Your task to perform on an android device: change text size in settings app Image 0: 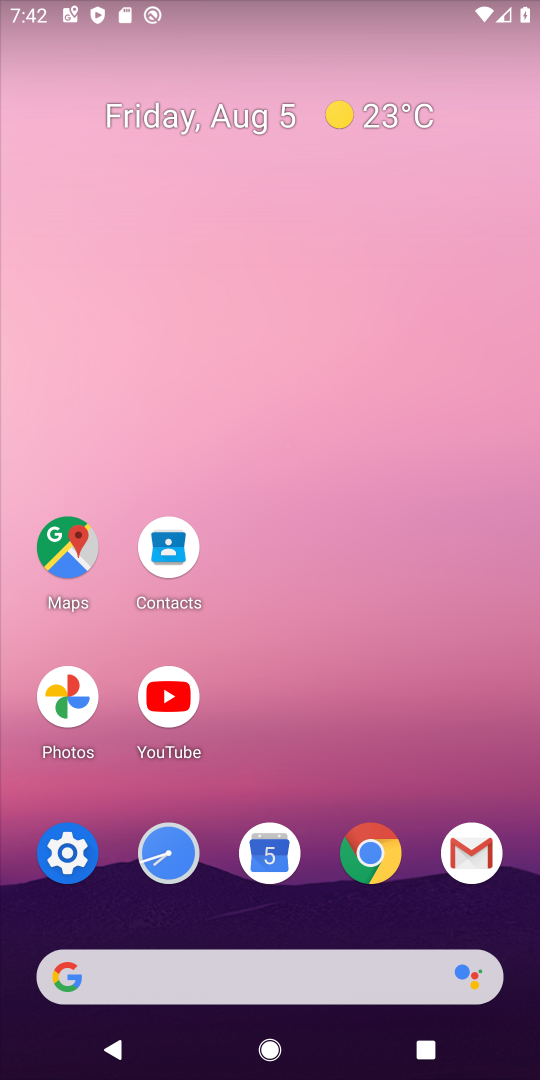
Step 0: click (81, 866)
Your task to perform on an android device: change text size in settings app Image 1: 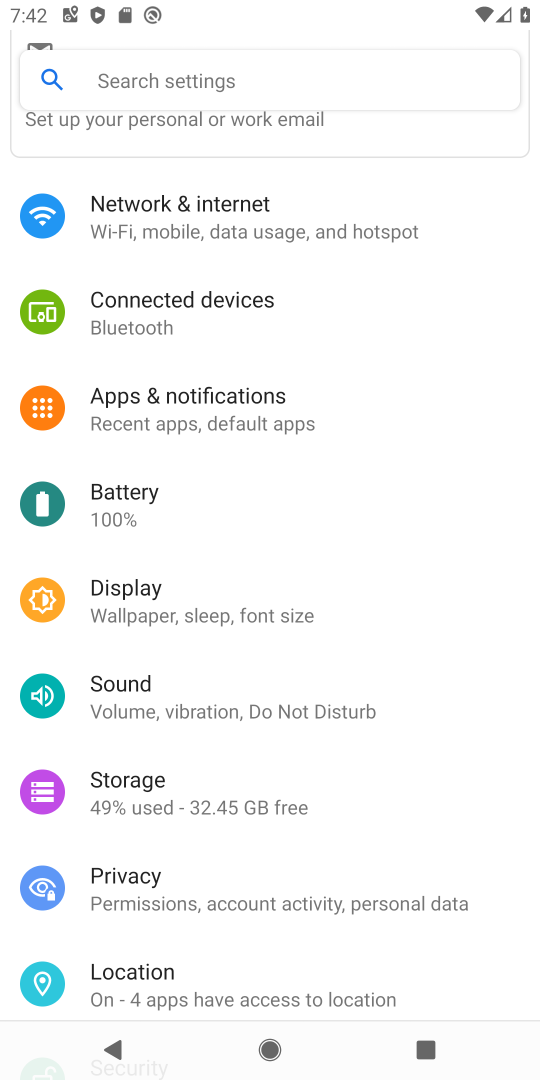
Step 1: click (94, 585)
Your task to perform on an android device: change text size in settings app Image 2: 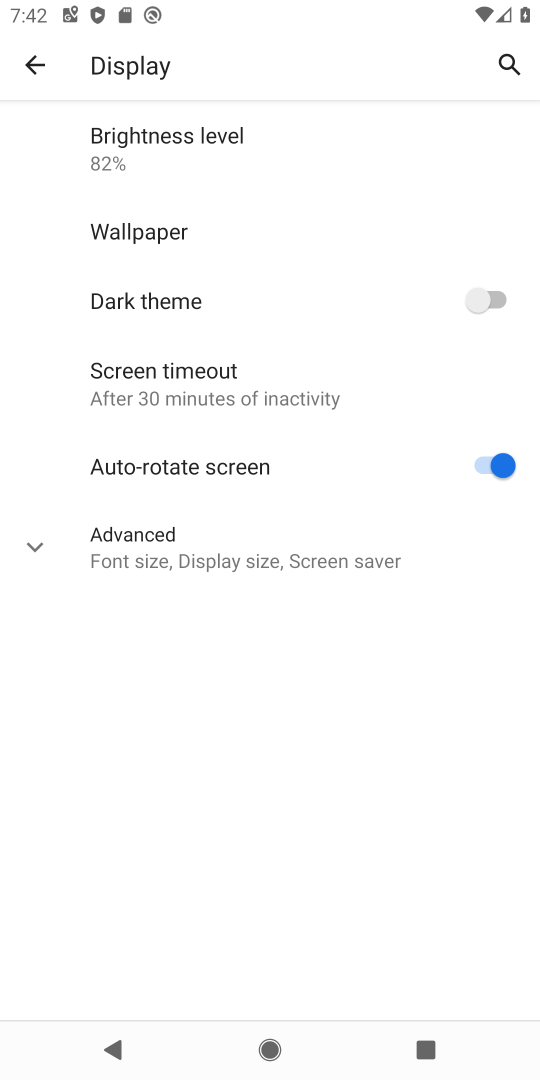
Step 2: click (104, 549)
Your task to perform on an android device: change text size in settings app Image 3: 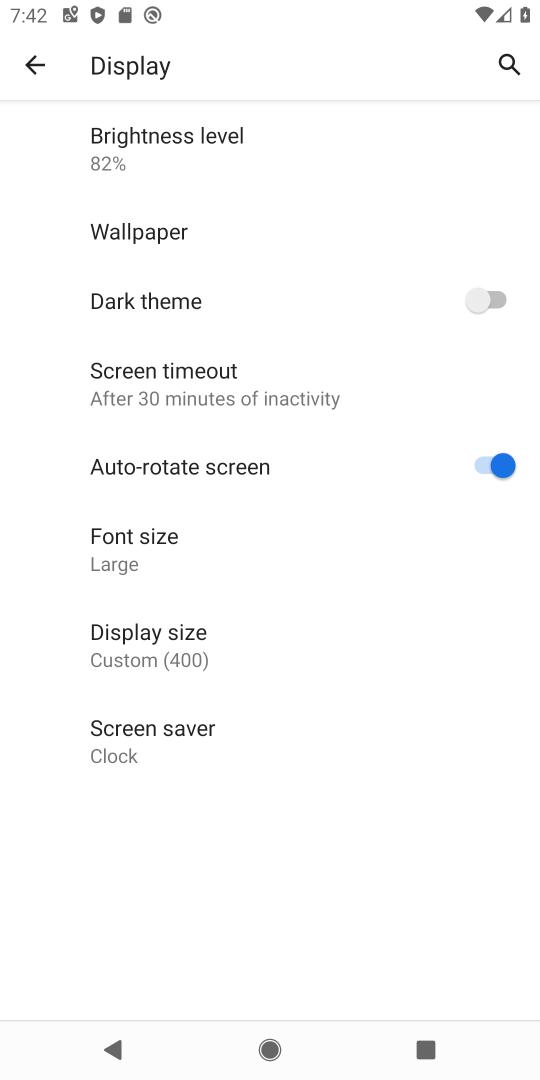
Step 3: click (128, 559)
Your task to perform on an android device: change text size in settings app Image 4: 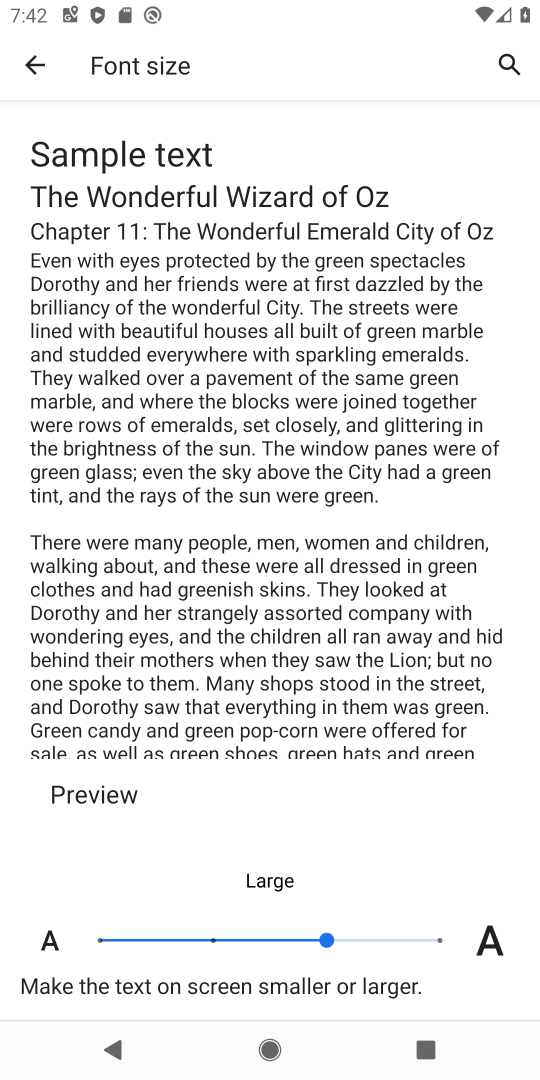
Step 4: click (226, 936)
Your task to perform on an android device: change text size in settings app Image 5: 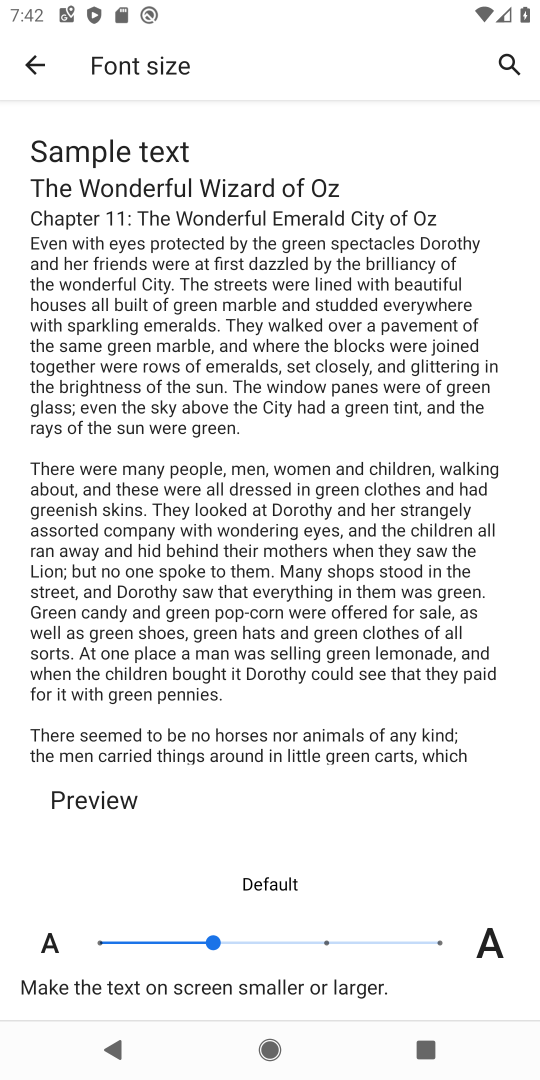
Step 5: task complete